Your task to perform on an android device: Go to location settings Image 0: 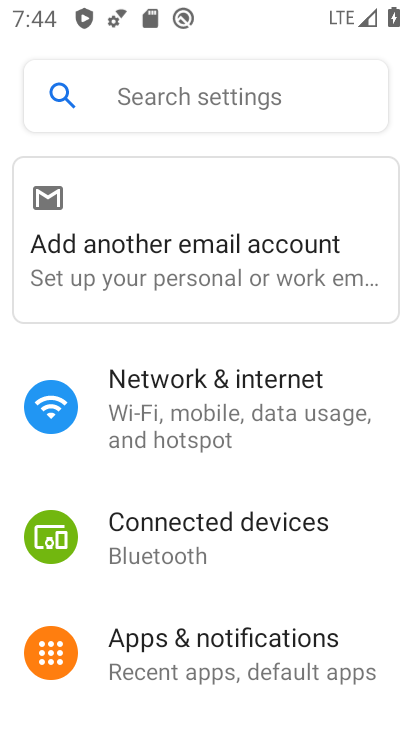
Step 0: drag from (247, 635) to (307, 89)
Your task to perform on an android device: Go to location settings Image 1: 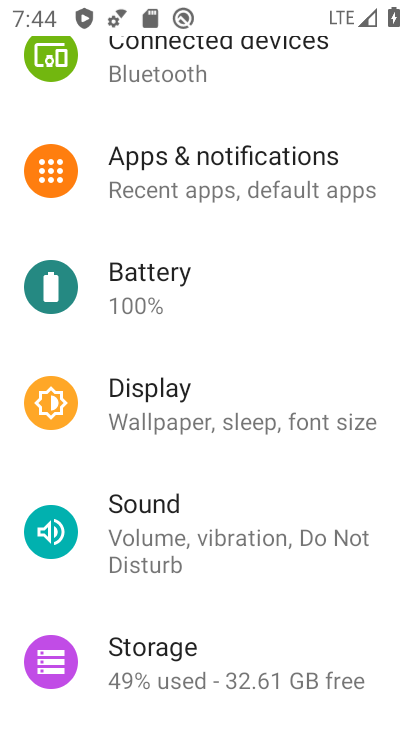
Step 1: drag from (220, 603) to (271, 230)
Your task to perform on an android device: Go to location settings Image 2: 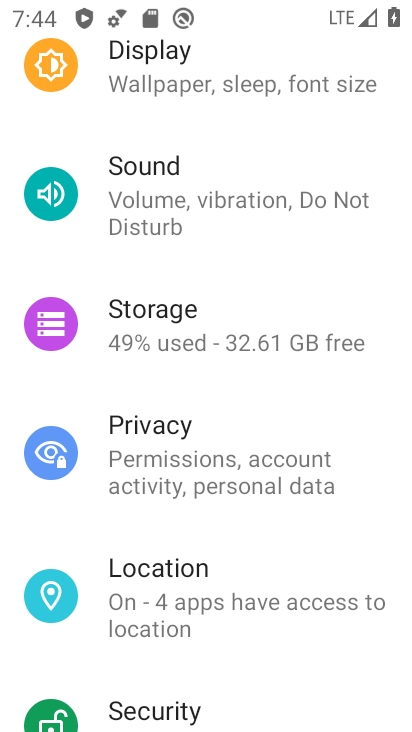
Step 2: click (193, 598)
Your task to perform on an android device: Go to location settings Image 3: 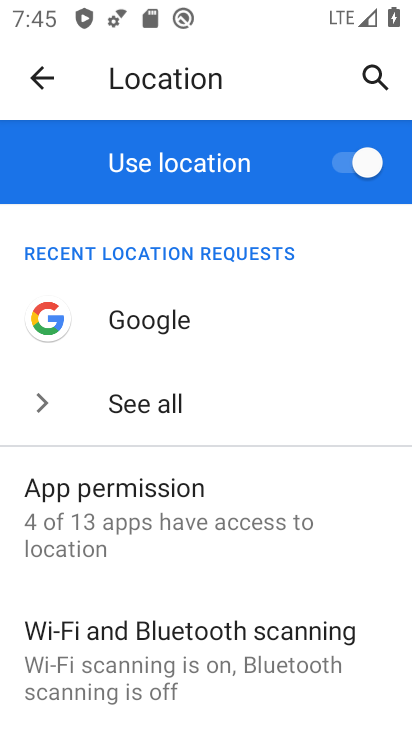
Step 3: task complete